Your task to perform on an android device: Go to privacy settings Image 0: 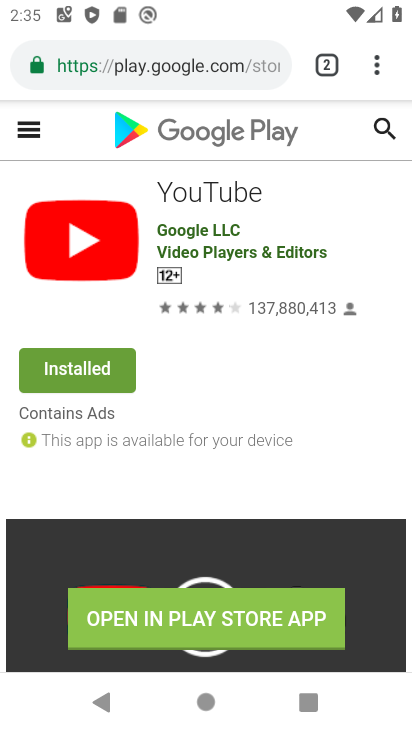
Step 0: press home button
Your task to perform on an android device: Go to privacy settings Image 1: 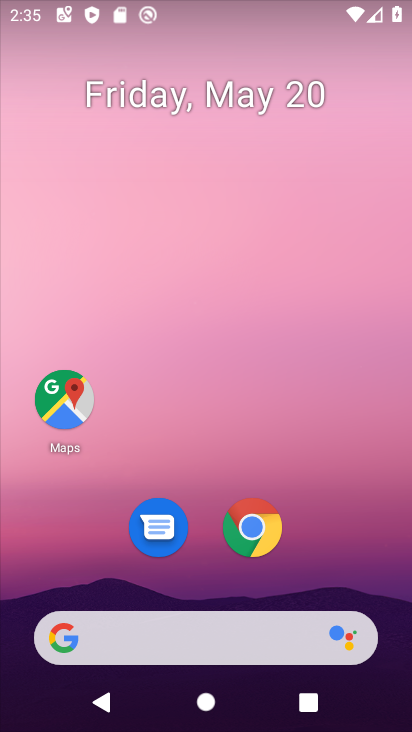
Step 1: drag from (255, 712) to (209, 50)
Your task to perform on an android device: Go to privacy settings Image 2: 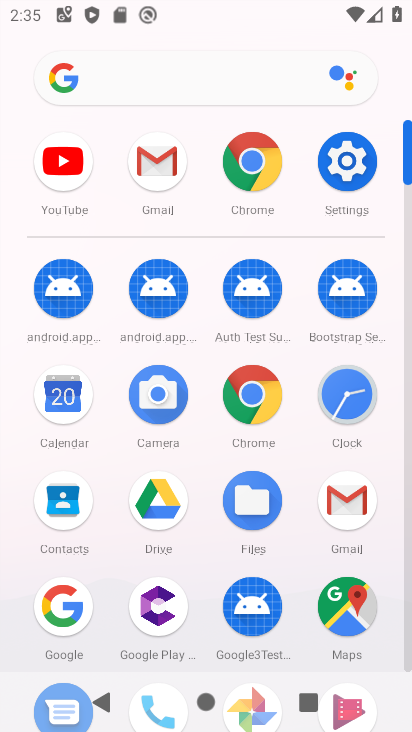
Step 2: click (353, 158)
Your task to perform on an android device: Go to privacy settings Image 3: 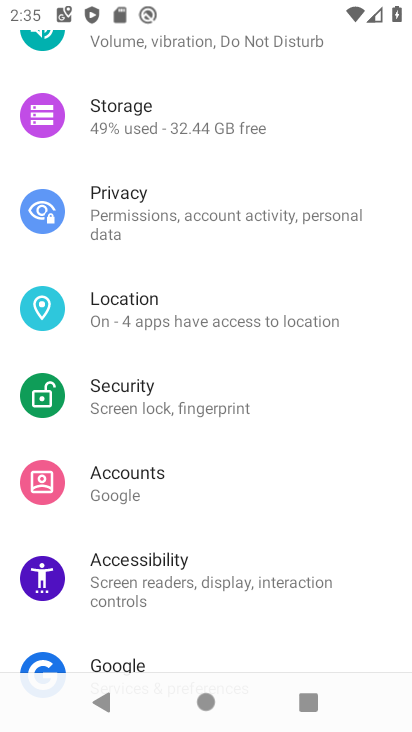
Step 3: click (220, 213)
Your task to perform on an android device: Go to privacy settings Image 4: 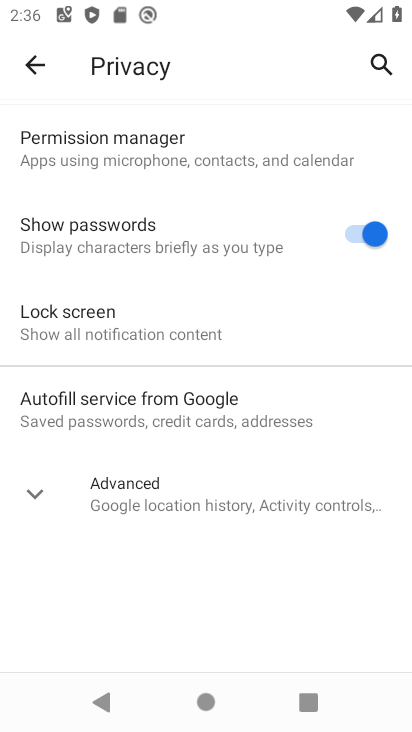
Step 4: task complete